Your task to perform on an android device: Open network settings Image 0: 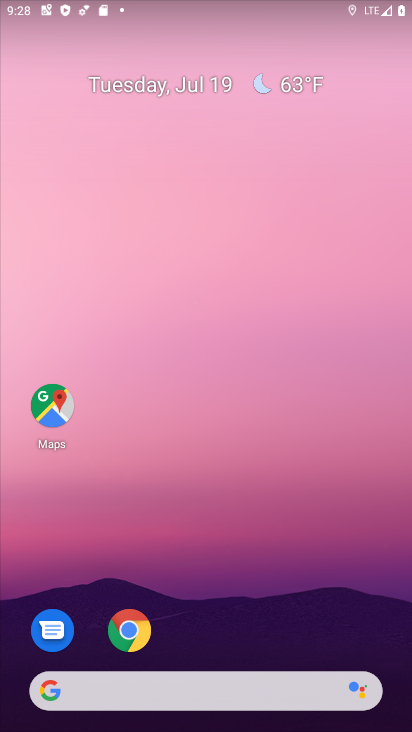
Step 0: drag from (165, 698) to (220, 103)
Your task to perform on an android device: Open network settings Image 1: 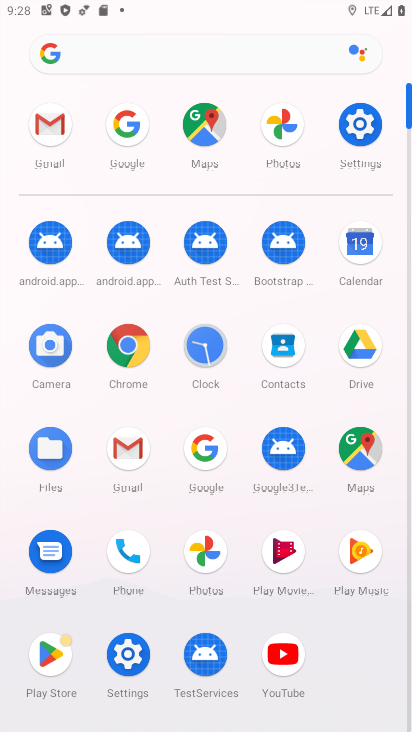
Step 1: click (362, 122)
Your task to perform on an android device: Open network settings Image 2: 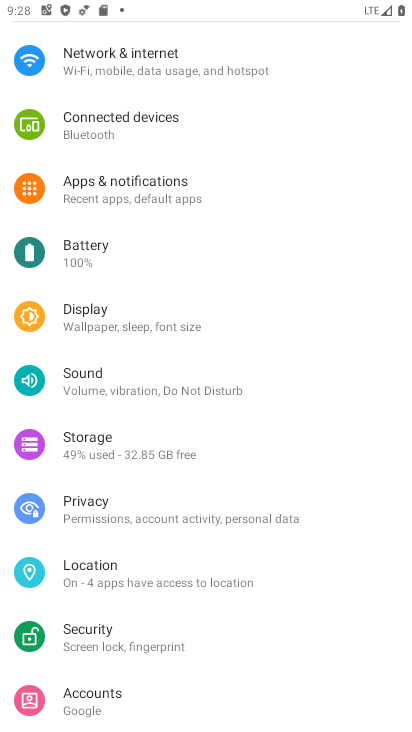
Step 2: click (113, 70)
Your task to perform on an android device: Open network settings Image 3: 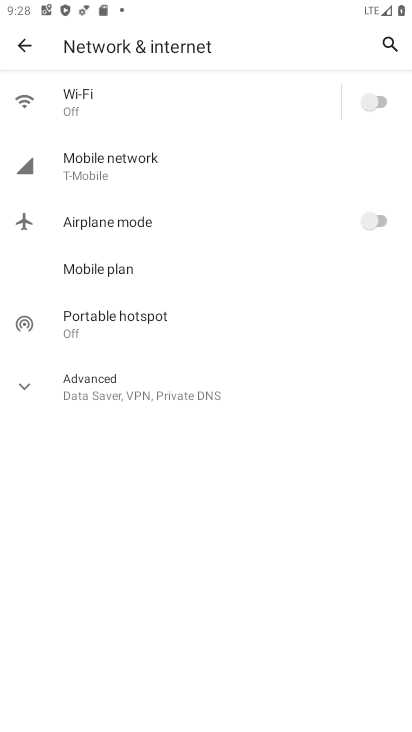
Step 3: task complete